Your task to perform on an android device: Go to ESPN.com Image 0: 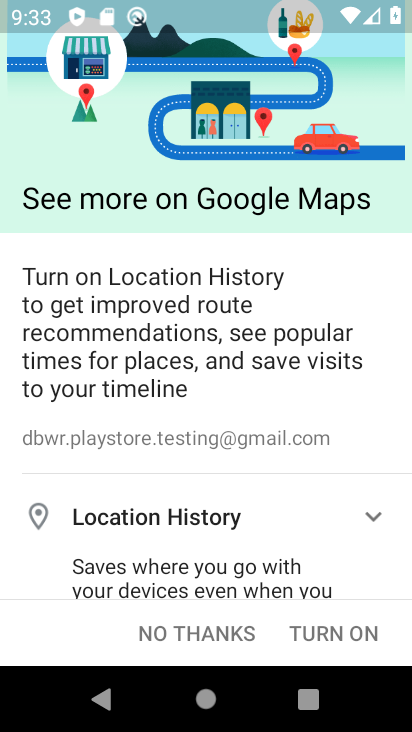
Step 0: press home button
Your task to perform on an android device: Go to ESPN.com Image 1: 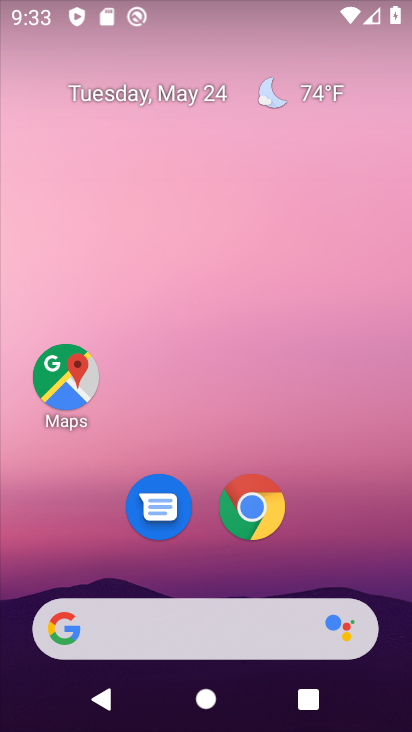
Step 1: click (252, 509)
Your task to perform on an android device: Go to ESPN.com Image 2: 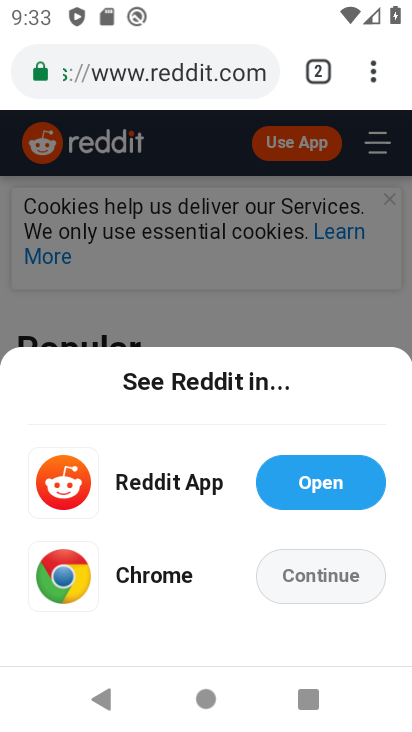
Step 2: click (375, 80)
Your task to perform on an android device: Go to ESPN.com Image 3: 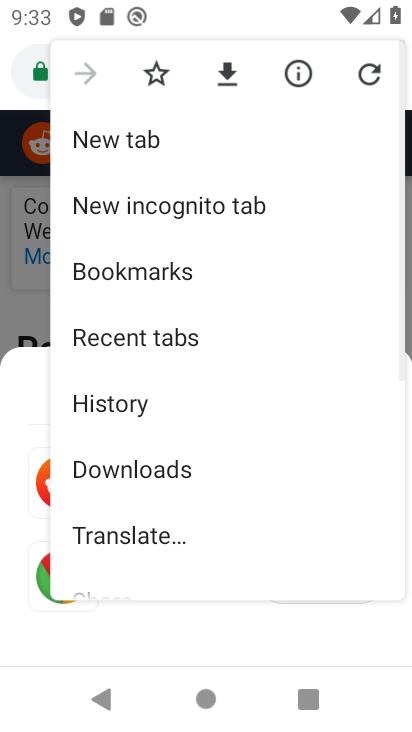
Step 3: click (119, 135)
Your task to perform on an android device: Go to ESPN.com Image 4: 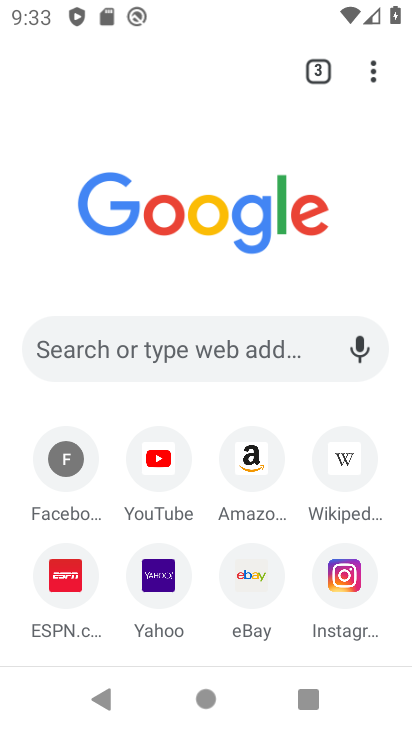
Step 4: click (63, 582)
Your task to perform on an android device: Go to ESPN.com Image 5: 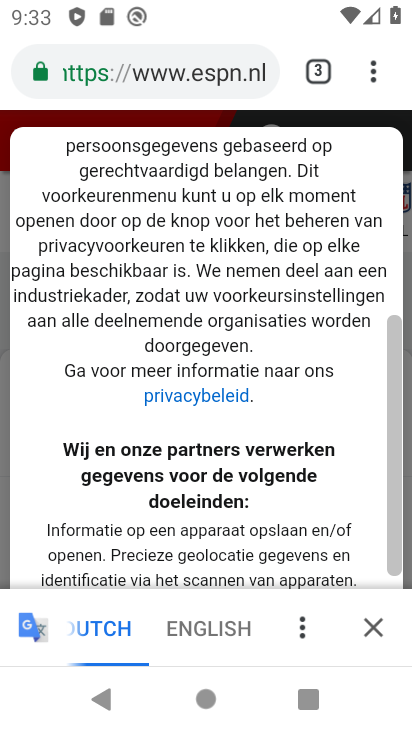
Step 5: drag from (194, 523) to (199, 196)
Your task to perform on an android device: Go to ESPN.com Image 6: 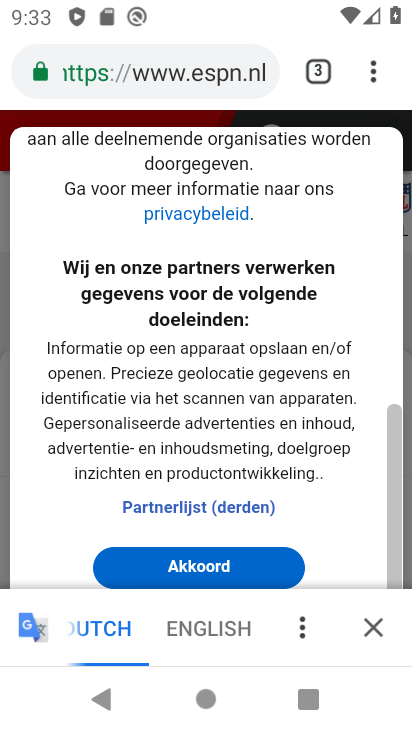
Step 6: click (213, 567)
Your task to perform on an android device: Go to ESPN.com Image 7: 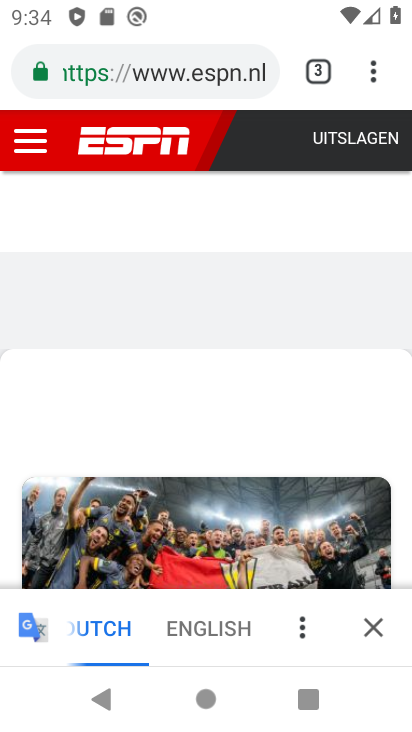
Step 7: task complete